Your task to perform on an android device: see creations saved in the google photos Image 0: 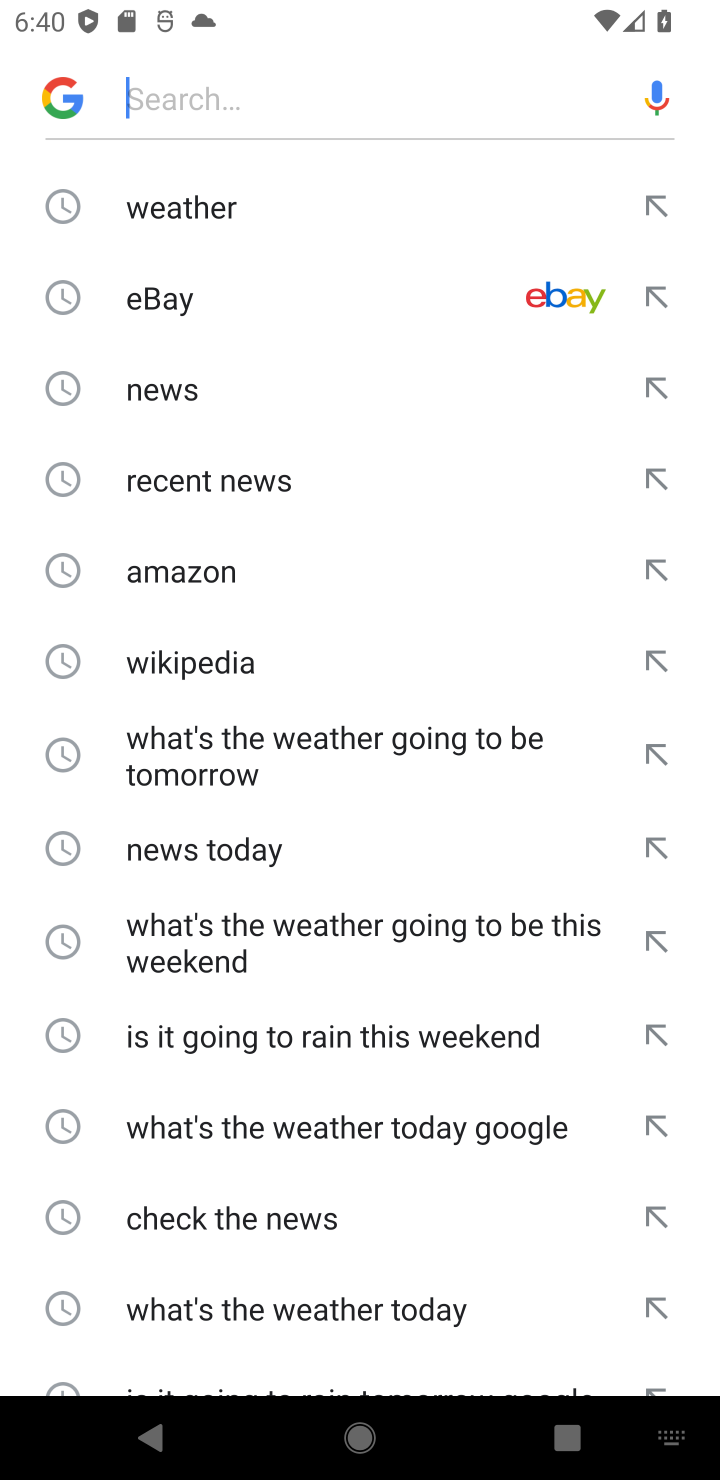
Step 0: press home button
Your task to perform on an android device: see creations saved in the google photos Image 1: 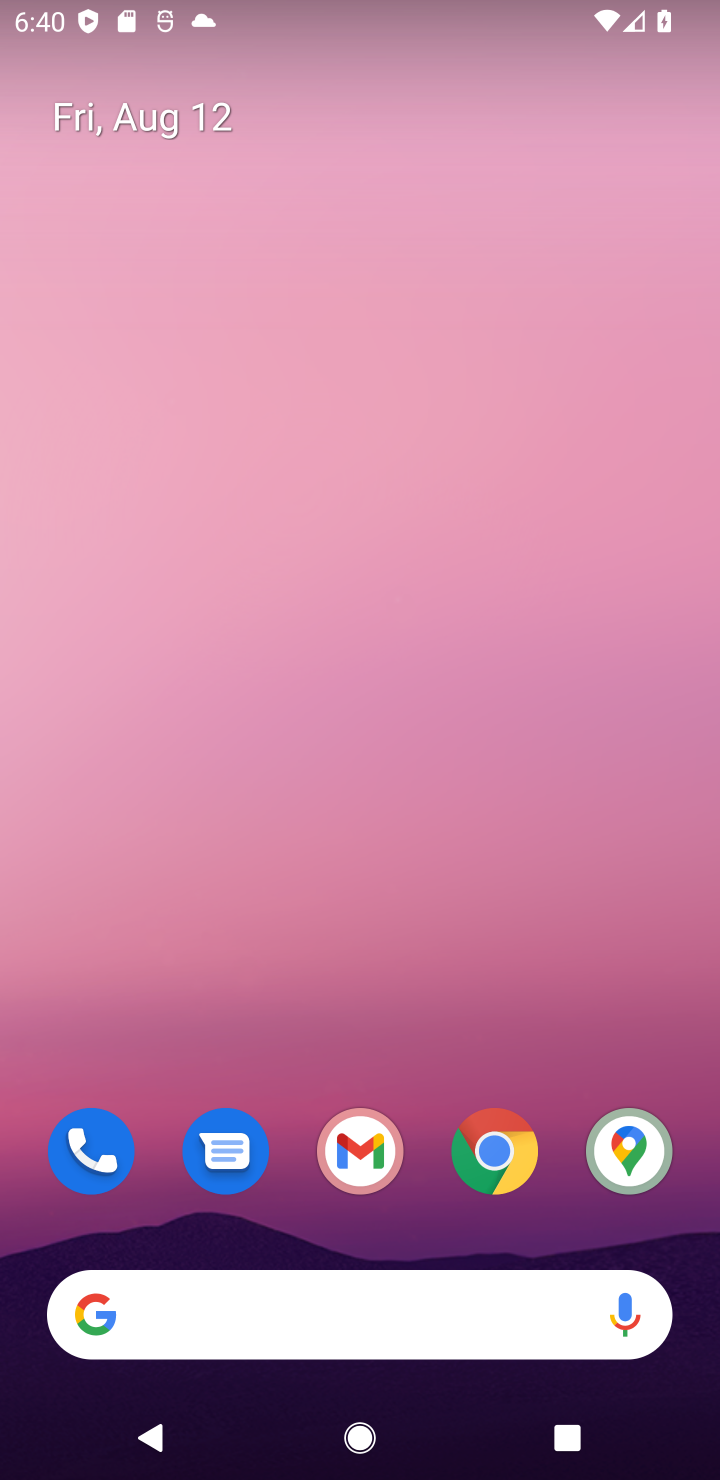
Step 1: drag from (448, 1025) to (428, 18)
Your task to perform on an android device: see creations saved in the google photos Image 2: 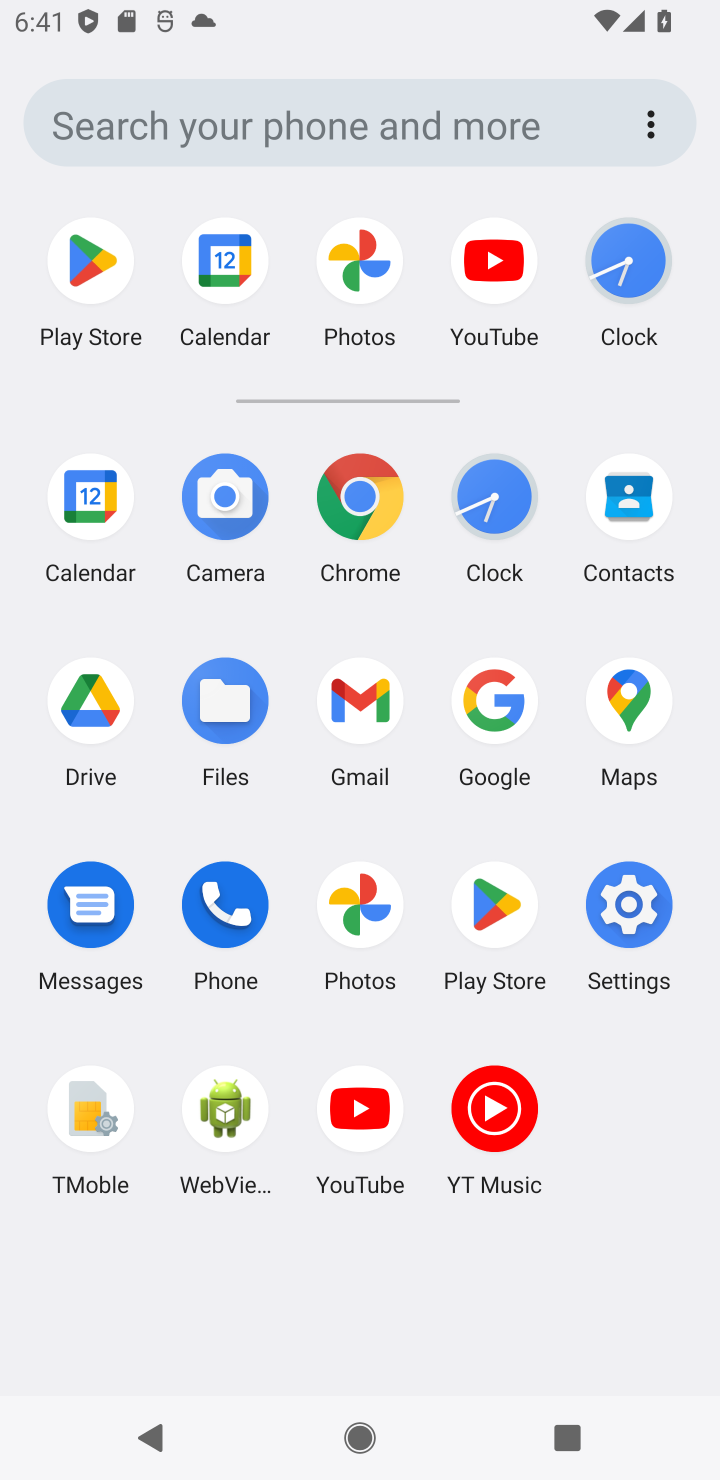
Step 2: click (360, 905)
Your task to perform on an android device: see creations saved in the google photos Image 3: 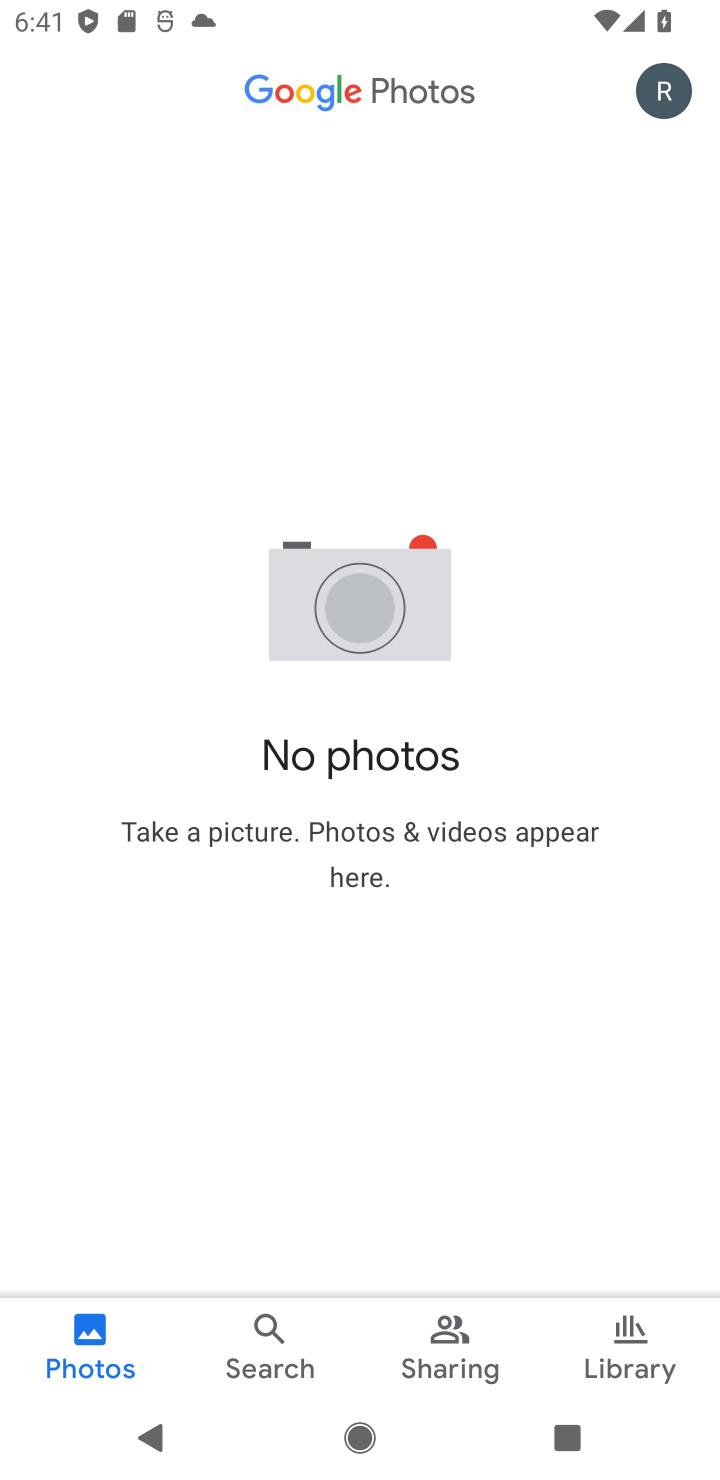
Step 3: click (606, 1347)
Your task to perform on an android device: see creations saved in the google photos Image 4: 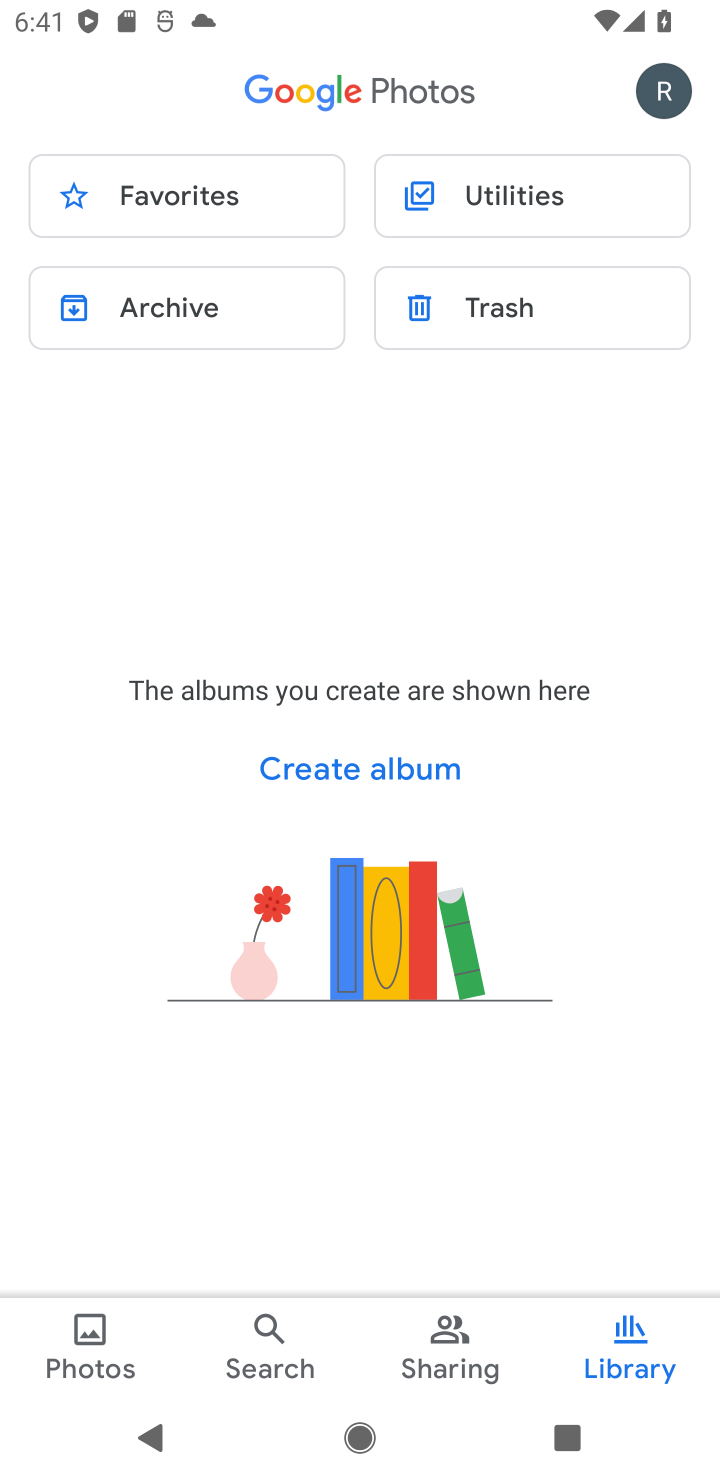
Step 4: click (497, 201)
Your task to perform on an android device: see creations saved in the google photos Image 5: 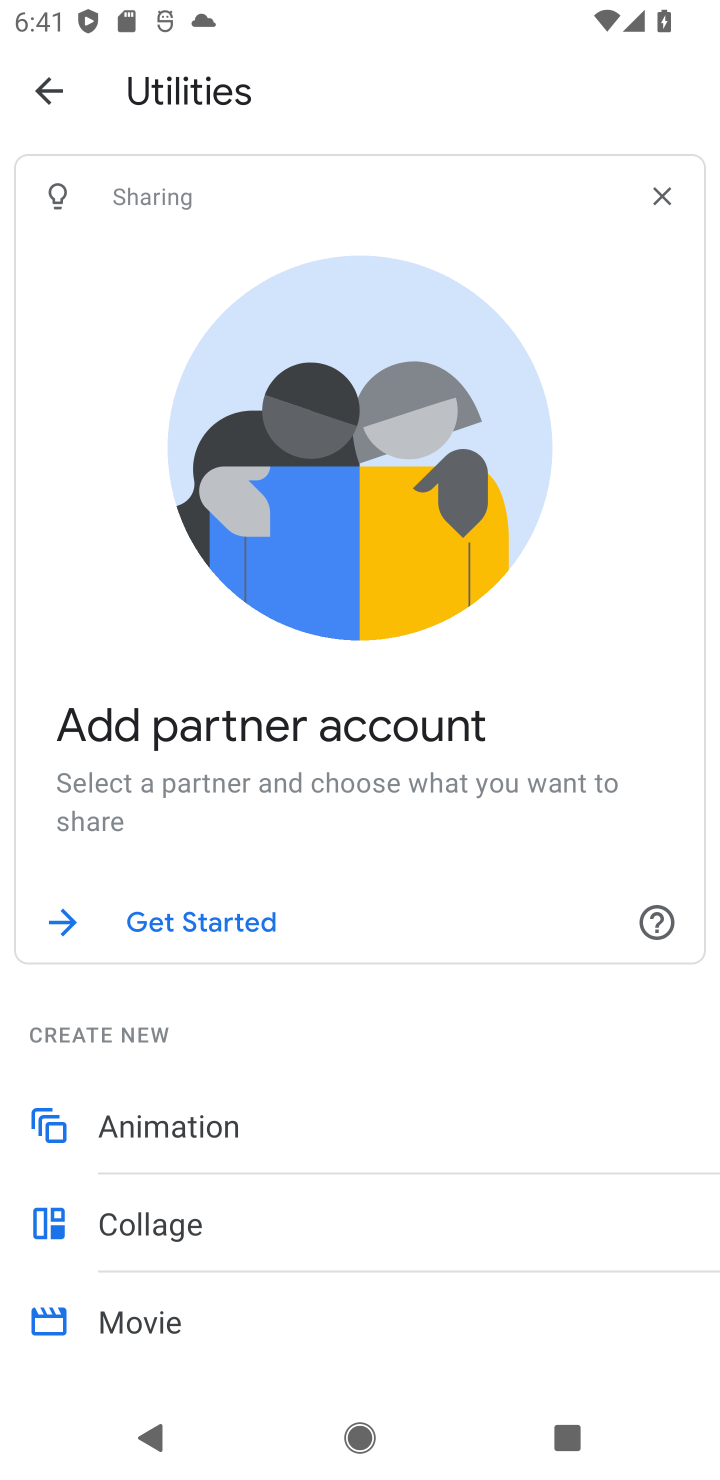
Step 5: task complete